Your task to perform on an android device: Open the stopwatch Image 0: 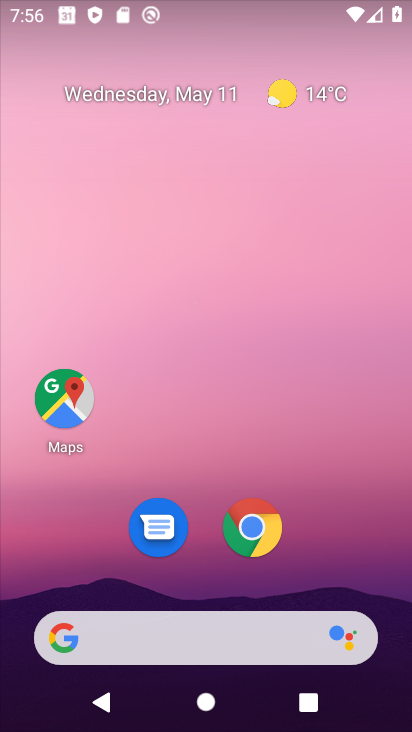
Step 0: drag from (212, 596) to (185, 94)
Your task to perform on an android device: Open the stopwatch Image 1: 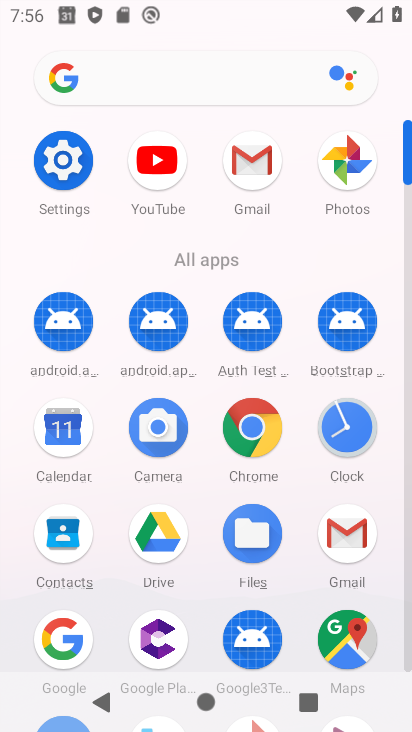
Step 1: click (356, 441)
Your task to perform on an android device: Open the stopwatch Image 2: 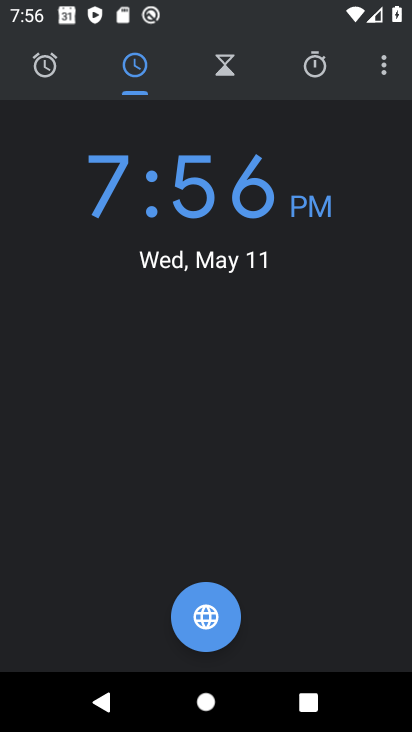
Step 2: click (318, 83)
Your task to perform on an android device: Open the stopwatch Image 3: 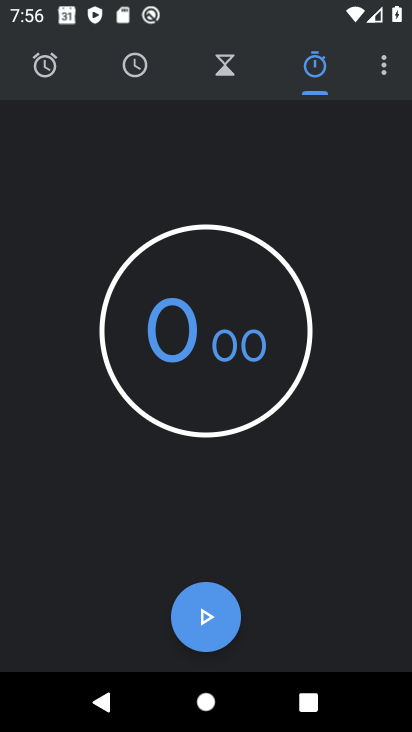
Step 3: task complete